Your task to perform on an android device: turn notification dots off Image 0: 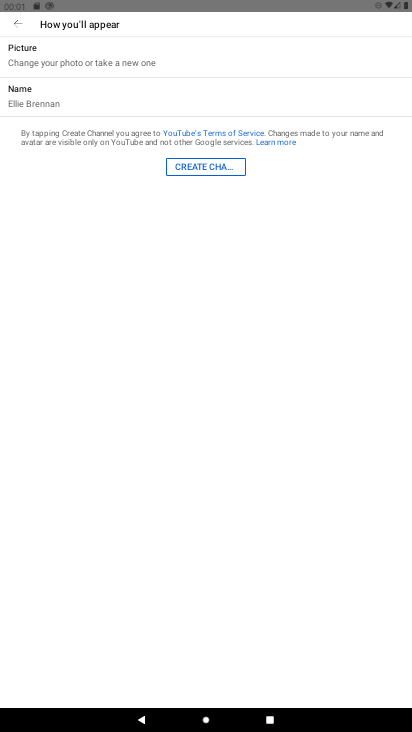
Step 0: press home button
Your task to perform on an android device: turn notification dots off Image 1: 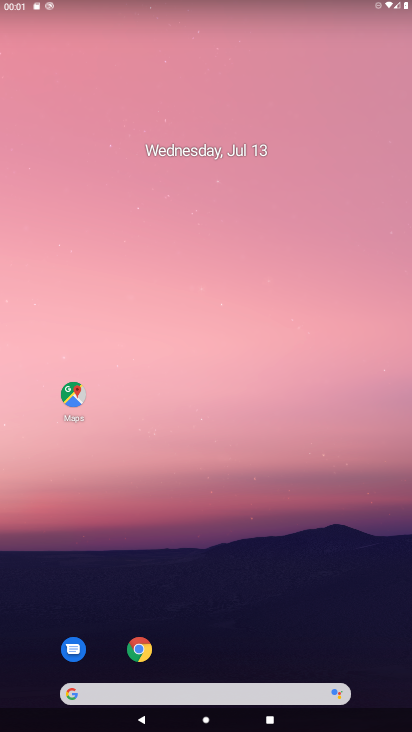
Step 1: drag from (367, 668) to (352, 173)
Your task to perform on an android device: turn notification dots off Image 2: 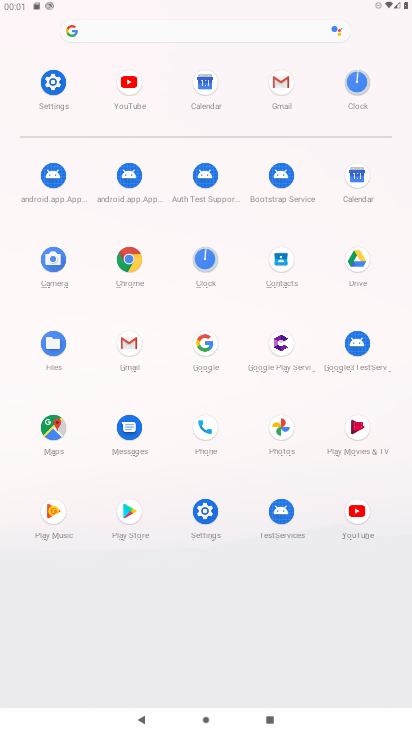
Step 2: click (203, 510)
Your task to perform on an android device: turn notification dots off Image 3: 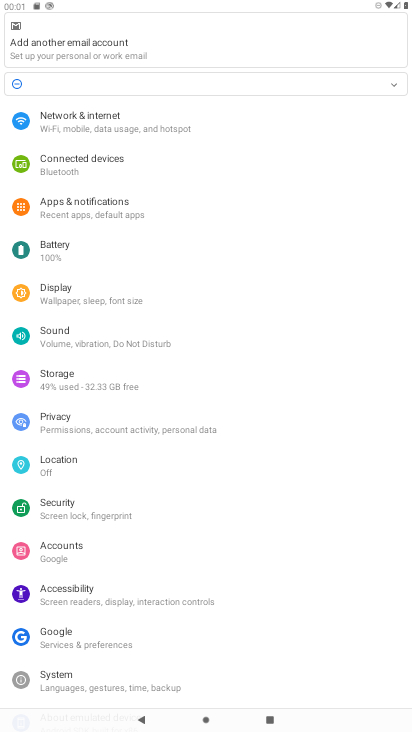
Step 3: click (67, 200)
Your task to perform on an android device: turn notification dots off Image 4: 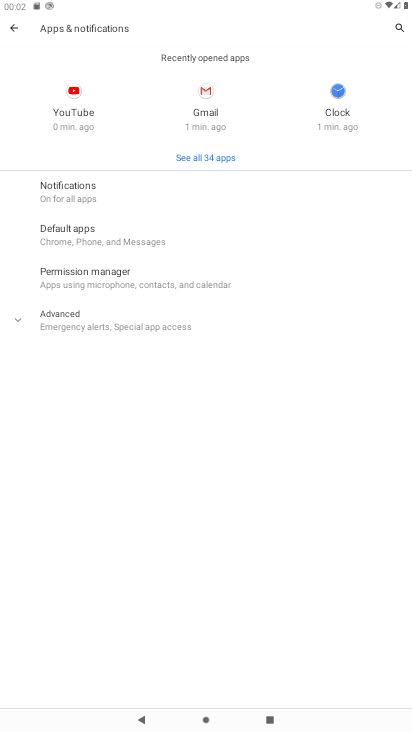
Step 4: click (67, 184)
Your task to perform on an android device: turn notification dots off Image 5: 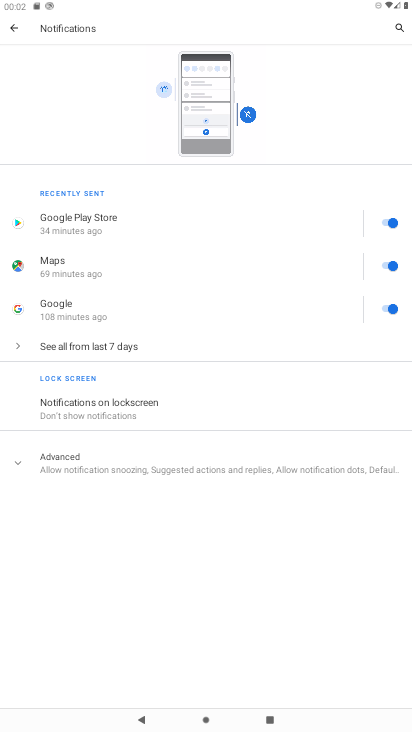
Step 5: click (16, 464)
Your task to perform on an android device: turn notification dots off Image 6: 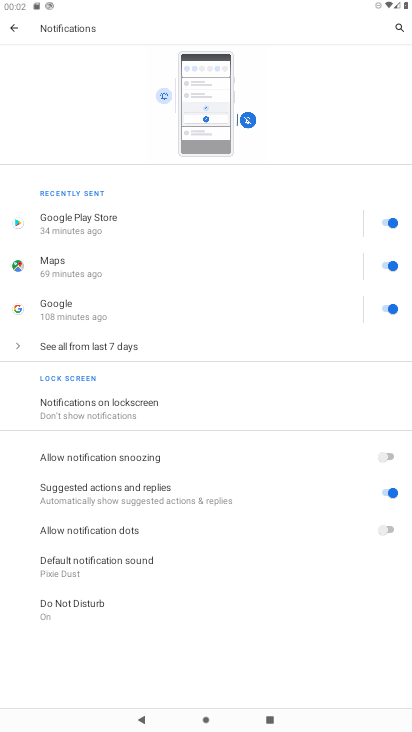
Step 6: task complete